Your task to perform on an android device: toggle show notifications on the lock screen Image 0: 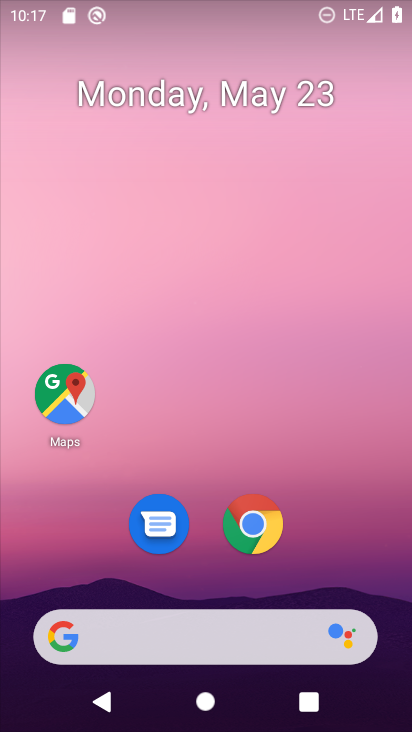
Step 0: drag from (217, 416) to (264, 1)
Your task to perform on an android device: toggle show notifications on the lock screen Image 1: 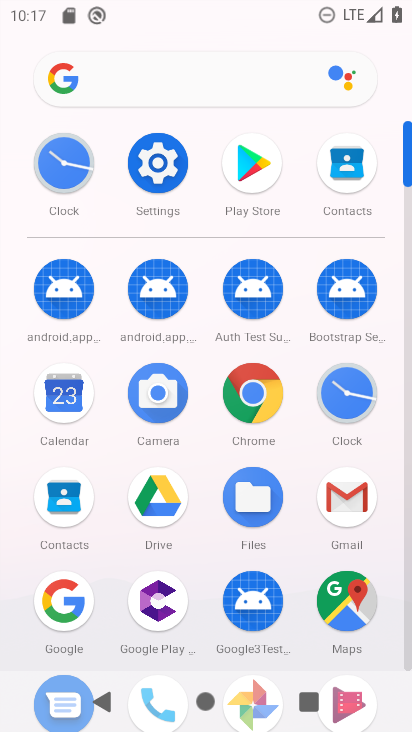
Step 1: click (163, 152)
Your task to perform on an android device: toggle show notifications on the lock screen Image 2: 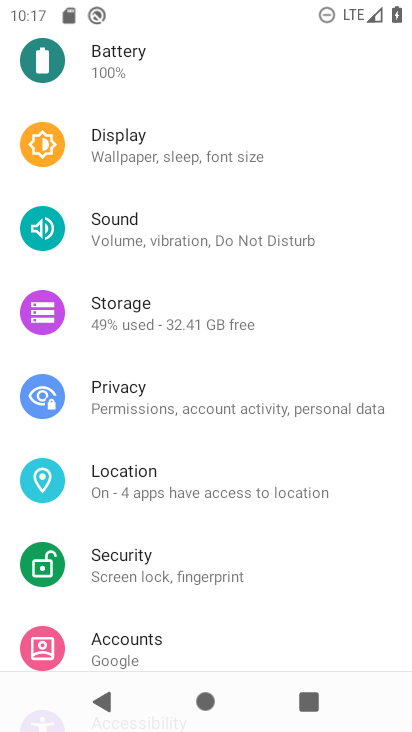
Step 2: drag from (201, 206) to (217, 594)
Your task to perform on an android device: toggle show notifications on the lock screen Image 3: 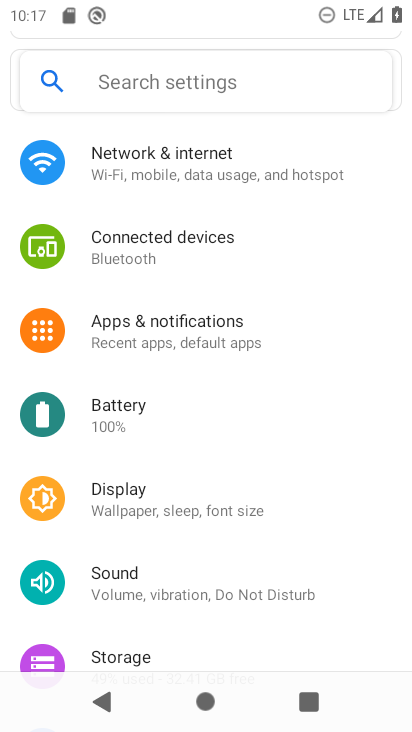
Step 3: click (196, 332)
Your task to perform on an android device: toggle show notifications on the lock screen Image 4: 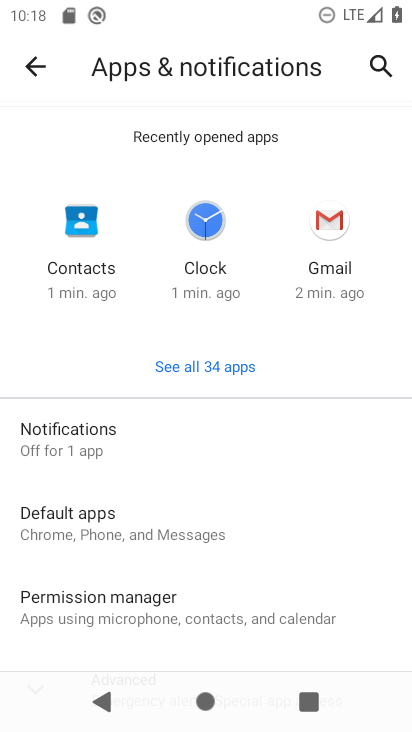
Step 4: click (178, 444)
Your task to perform on an android device: toggle show notifications on the lock screen Image 5: 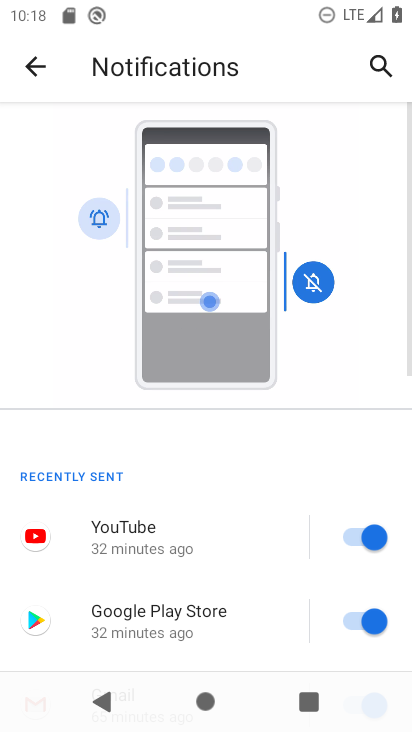
Step 5: drag from (204, 529) to (256, 135)
Your task to perform on an android device: toggle show notifications on the lock screen Image 6: 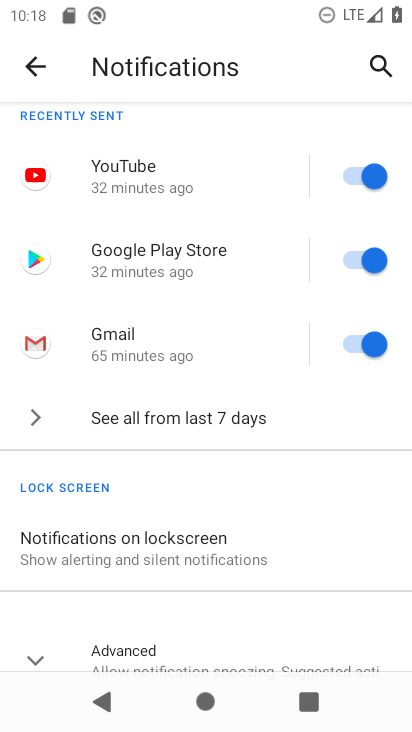
Step 6: click (162, 537)
Your task to perform on an android device: toggle show notifications on the lock screen Image 7: 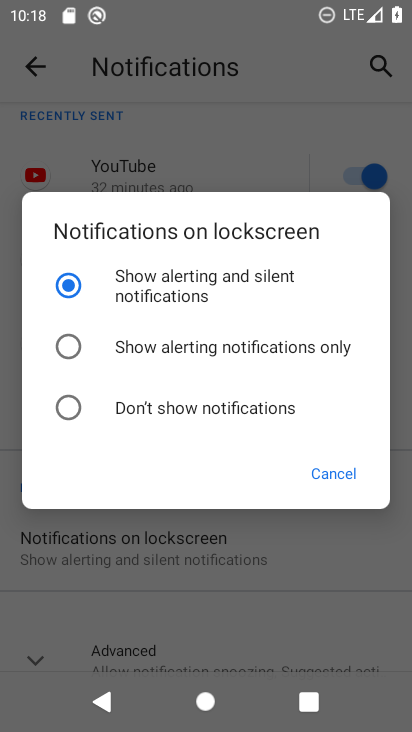
Step 7: click (64, 403)
Your task to perform on an android device: toggle show notifications on the lock screen Image 8: 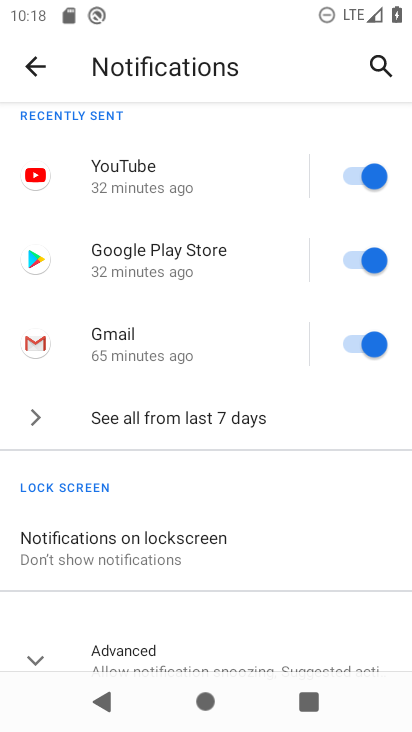
Step 8: task complete